Your task to perform on an android device: manage bookmarks in the chrome app Image 0: 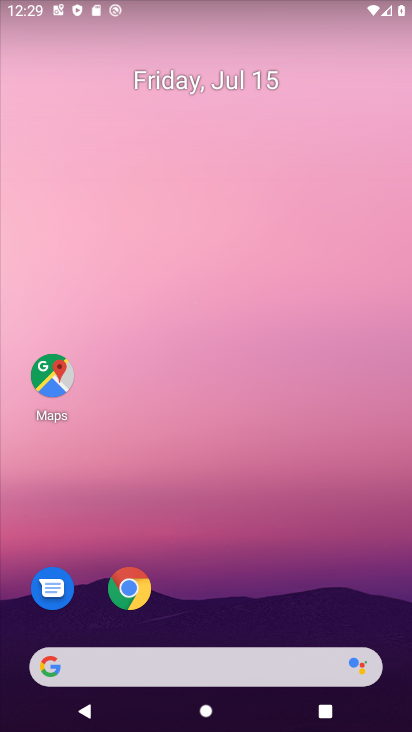
Step 0: click (122, 588)
Your task to perform on an android device: manage bookmarks in the chrome app Image 1: 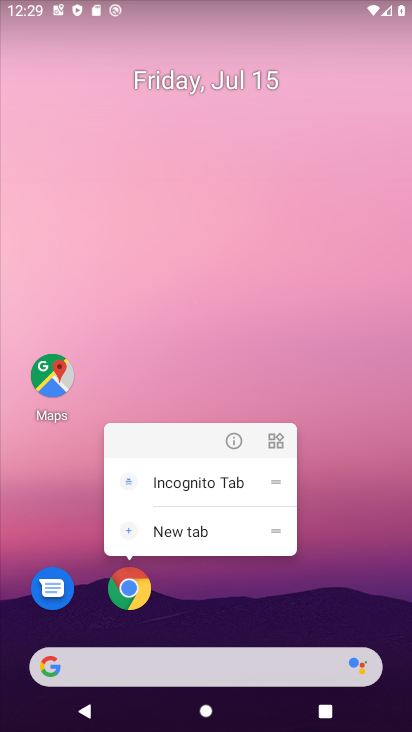
Step 1: click (122, 588)
Your task to perform on an android device: manage bookmarks in the chrome app Image 2: 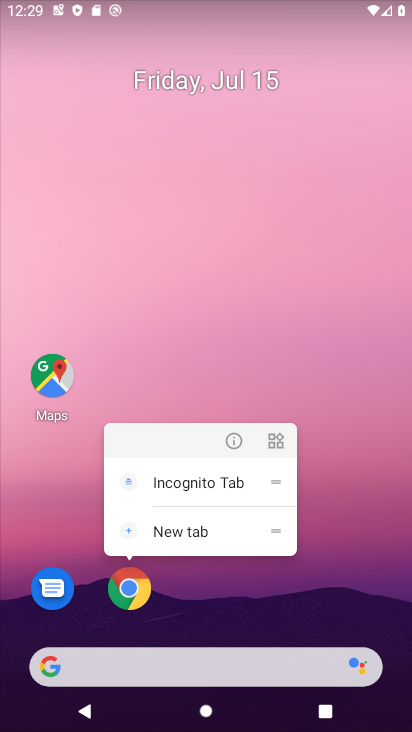
Step 2: click (98, 603)
Your task to perform on an android device: manage bookmarks in the chrome app Image 3: 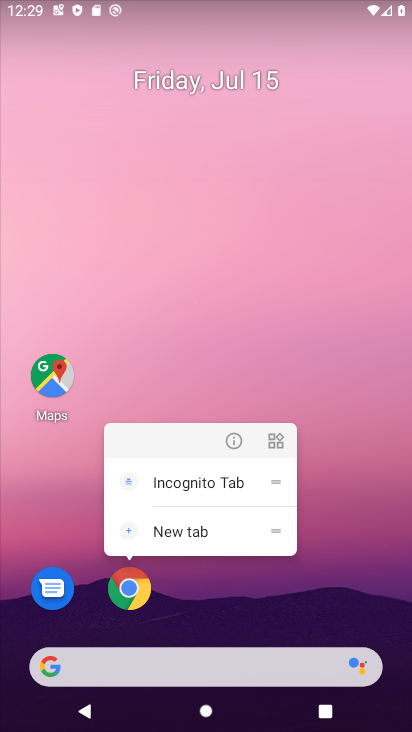
Step 3: click (98, 603)
Your task to perform on an android device: manage bookmarks in the chrome app Image 4: 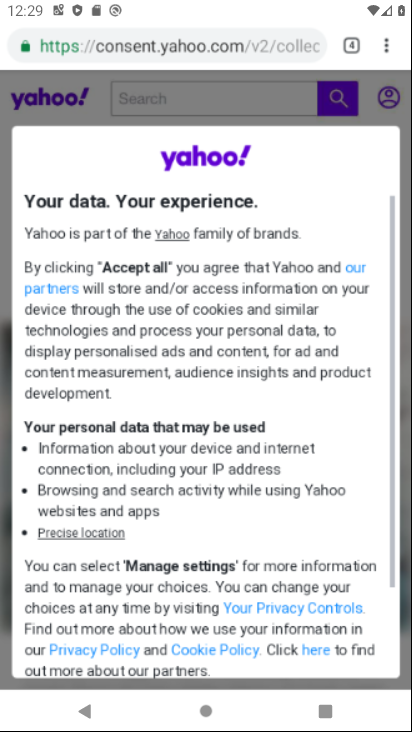
Step 4: click (383, 46)
Your task to perform on an android device: manage bookmarks in the chrome app Image 5: 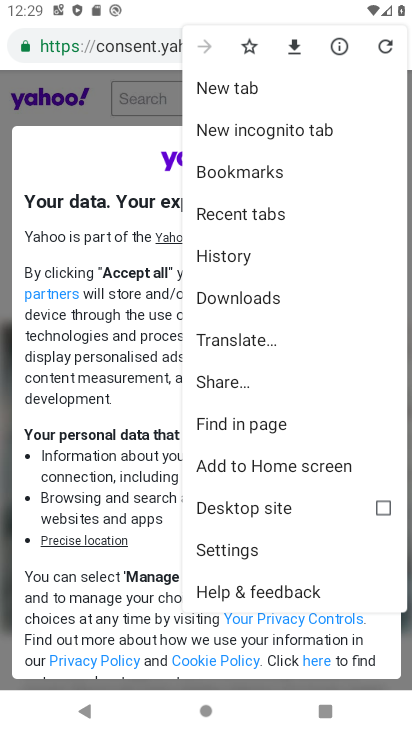
Step 5: click (280, 174)
Your task to perform on an android device: manage bookmarks in the chrome app Image 6: 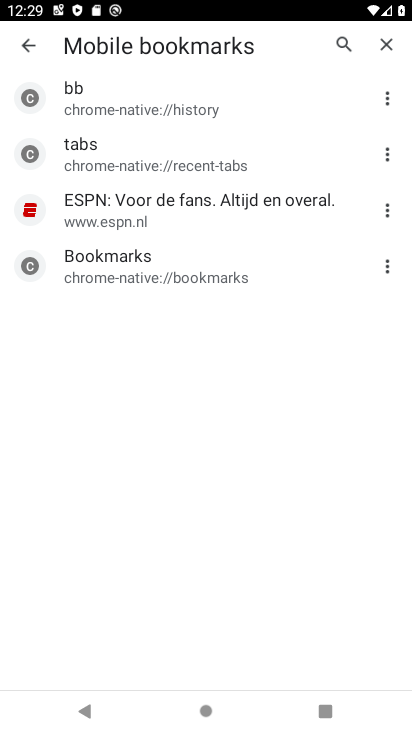
Step 6: click (394, 212)
Your task to perform on an android device: manage bookmarks in the chrome app Image 7: 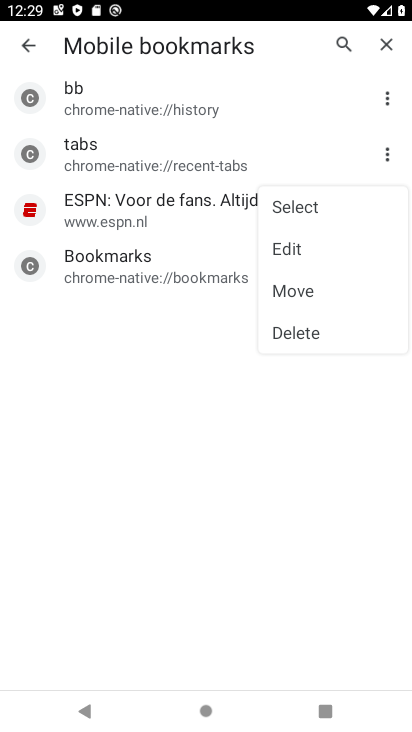
Step 7: click (329, 333)
Your task to perform on an android device: manage bookmarks in the chrome app Image 8: 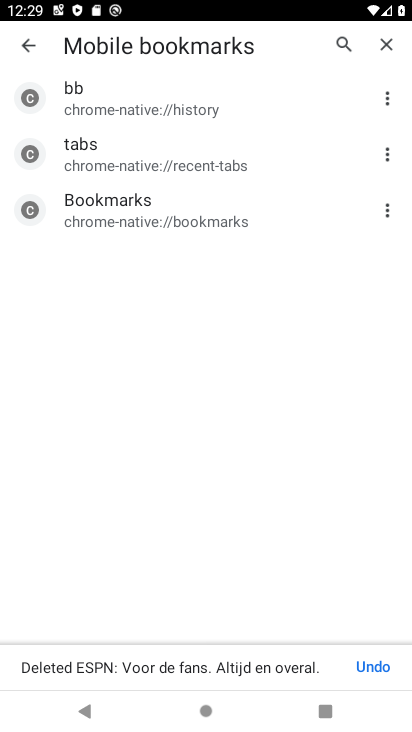
Step 8: task complete